Your task to perform on an android device: move a message to another label in the gmail app Image 0: 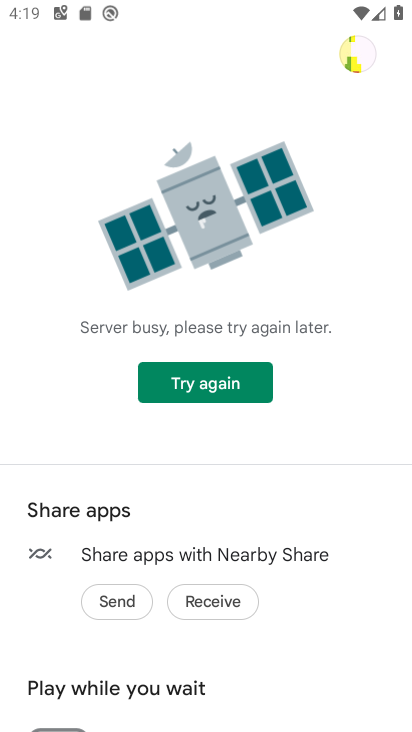
Step 0: press home button
Your task to perform on an android device: move a message to another label in the gmail app Image 1: 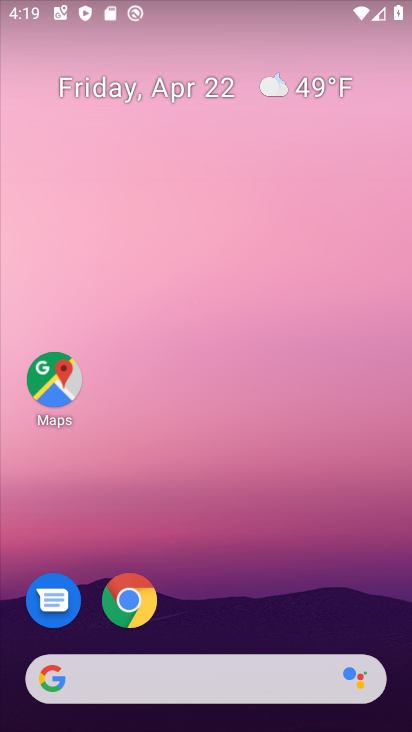
Step 1: drag from (243, 600) to (270, 24)
Your task to perform on an android device: move a message to another label in the gmail app Image 2: 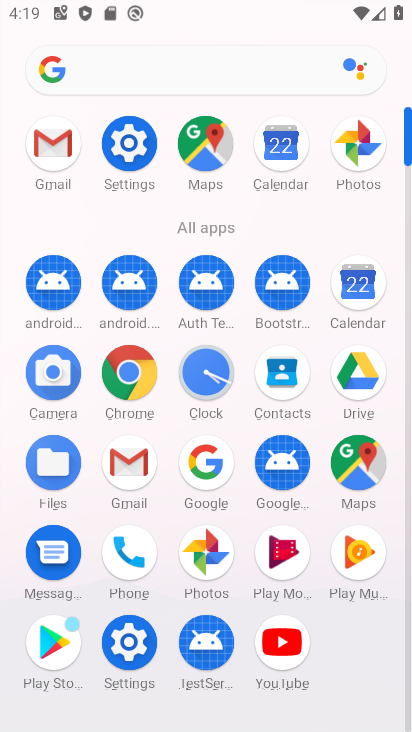
Step 2: click (50, 143)
Your task to perform on an android device: move a message to another label in the gmail app Image 3: 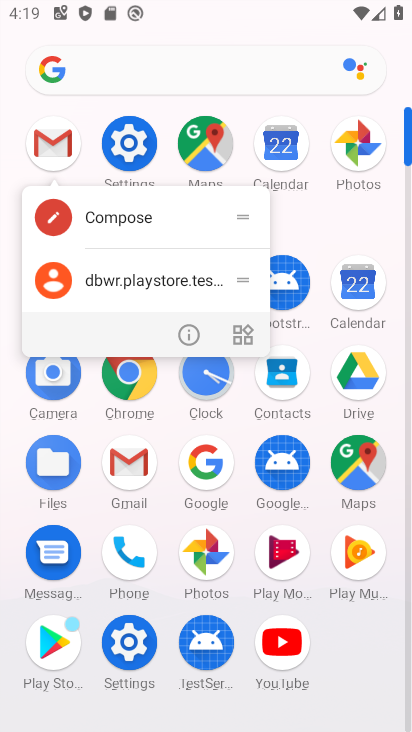
Step 3: click (50, 143)
Your task to perform on an android device: move a message to another label in the gmail app Image 4: 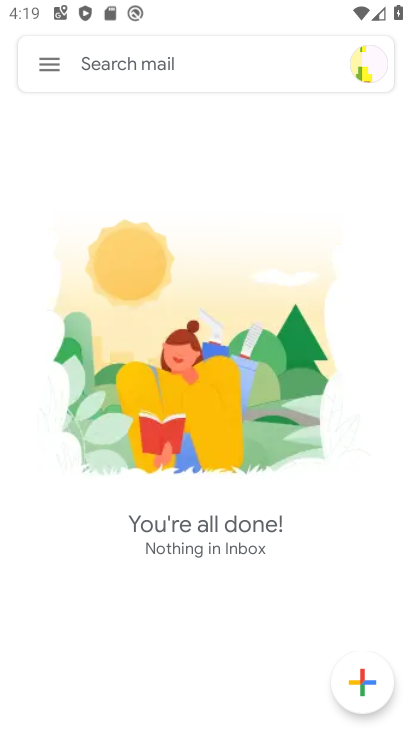
Step 4: click (52, 69)
Your task to perform on an android device: move a message to another label in the gmail app Image 5: 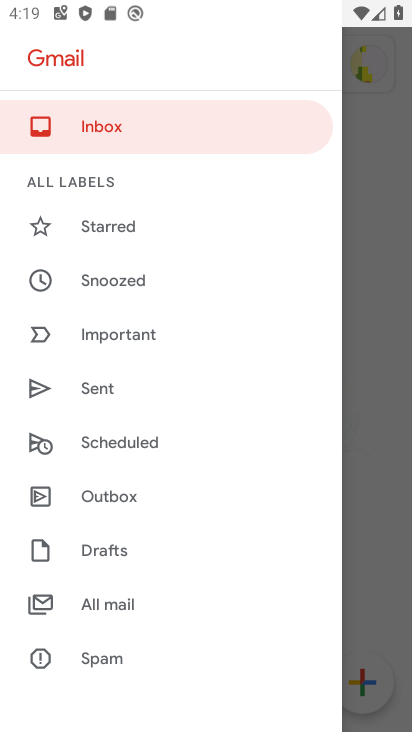
Step 5: drag from (125, 361) to (136, 301)
Your task to perform on an android device: move a message to another label in the gmail app Image 6: 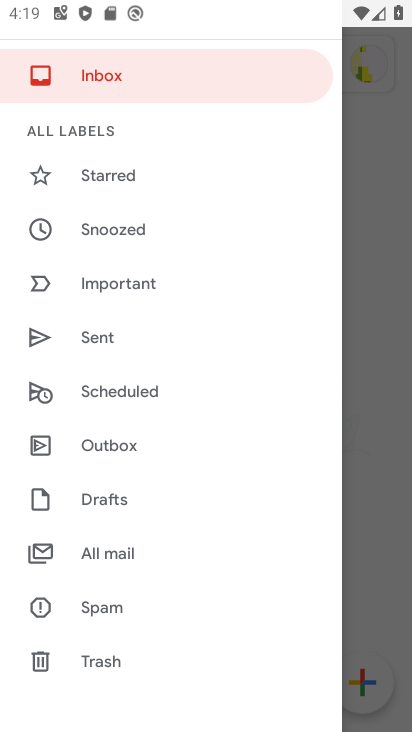
Step 6: click (112, 552)
Your task to perform on an android device: move a message to another label in the gmail app Image 7: 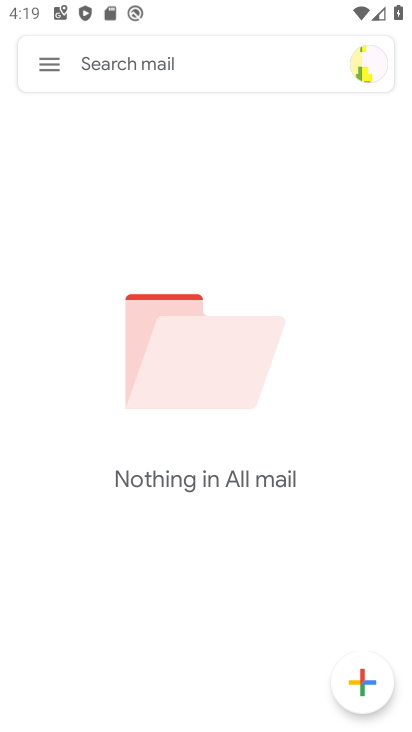
Step 7: task complete